Your task to perform on an android device: Turn on the flashlight Image 0: 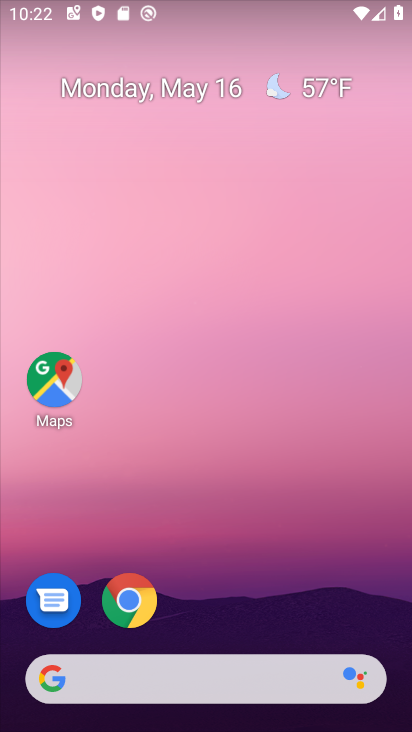
Step 0: drag from (300, 606) to (332, 174)
Your task to perform on an android device: Turn on the flashlight Image 1: 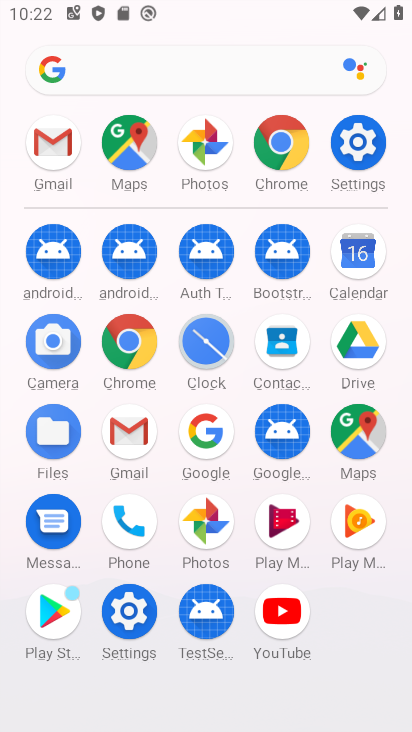
Step 1: click (354, 150)
Your task to perform on an android device: Turn on the flashlight Image 2: 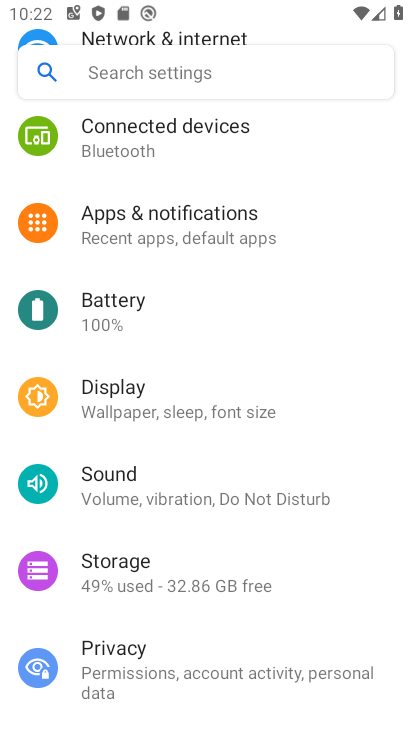
Step 2: click (228, 79)
Your task to perform on an android device: Turn on the flashlight Image 3: 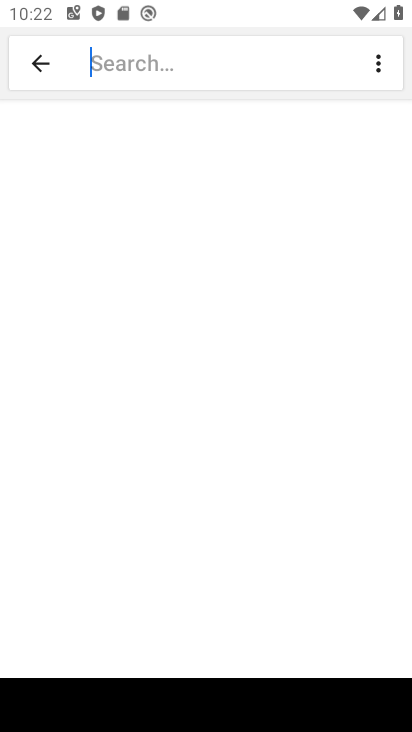
Step 3: type "flashlight"
Your task to perform on an android device: Turn on the flashlight Image 4: 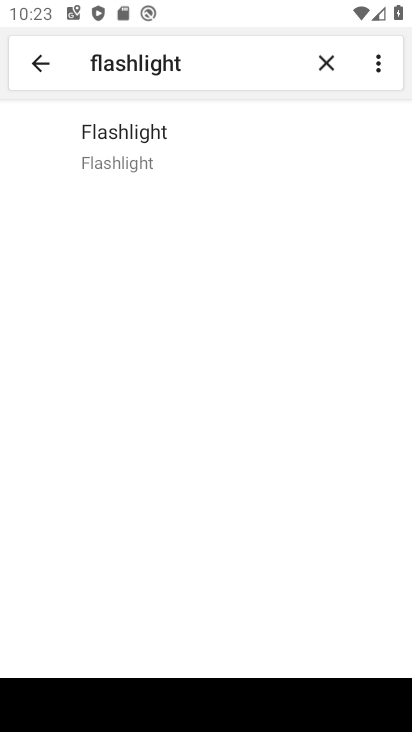
Step 4: click (143, 152)
Your task to perform on an android device: Turn on the flashlight Image 5: 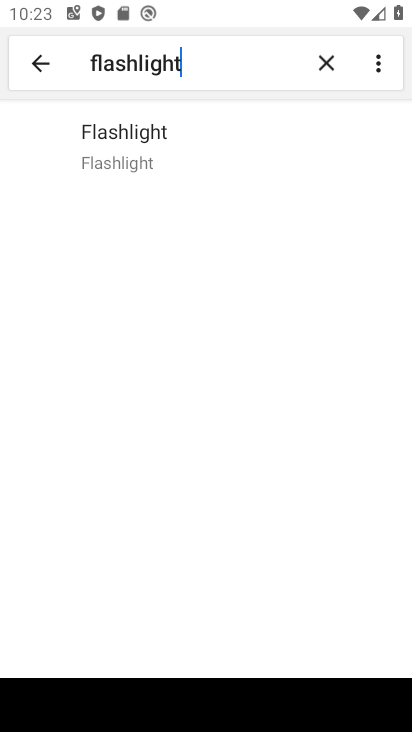
Step 5: task complete